Your task to perform on an android device: Go to Android settings Image 0: 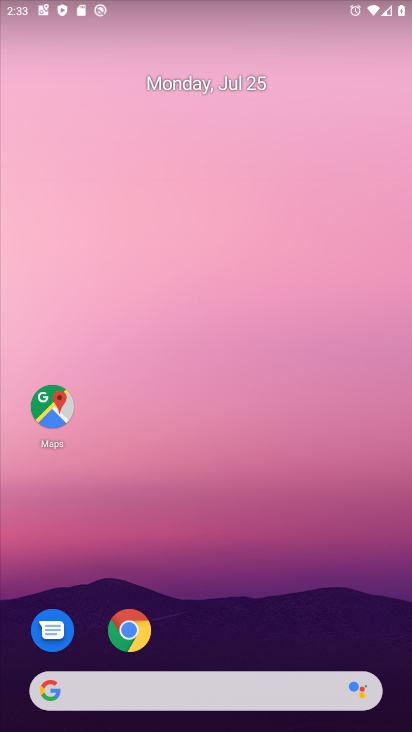
Step 0: drag from (262, 632) to (212, 0)
Your task to perform on an android device: Go to Android settings Image 1: 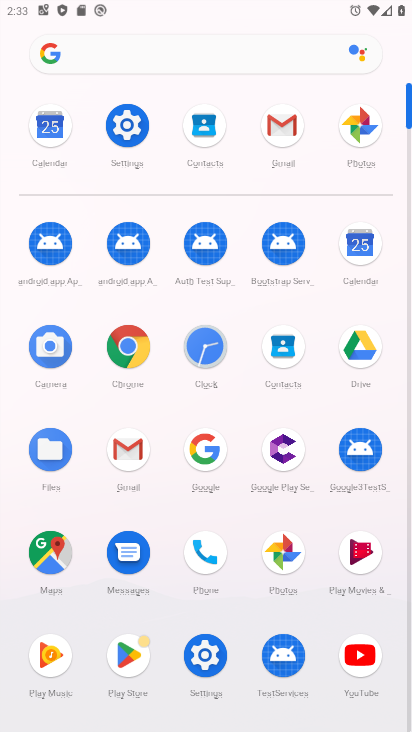
Step 1: click (126, 168)
Your task to perform on an android device: Go to Android settings Image 2: 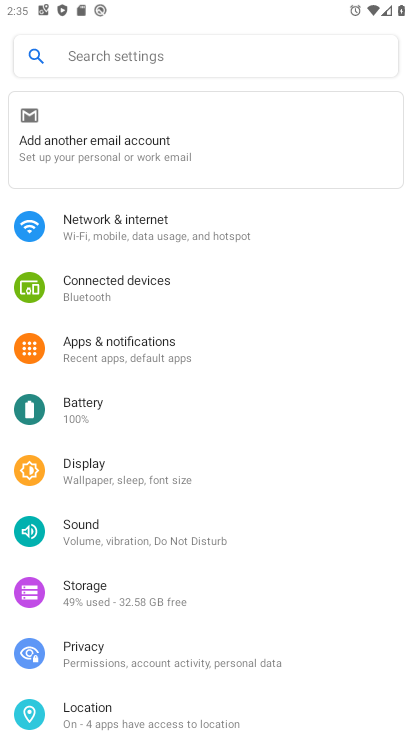
Step 2: task complete